Your task to perform on an android device: Clear the shopping cart on amazon. Add dell alienware to the cart on amazon, then select checkout. Image 0: 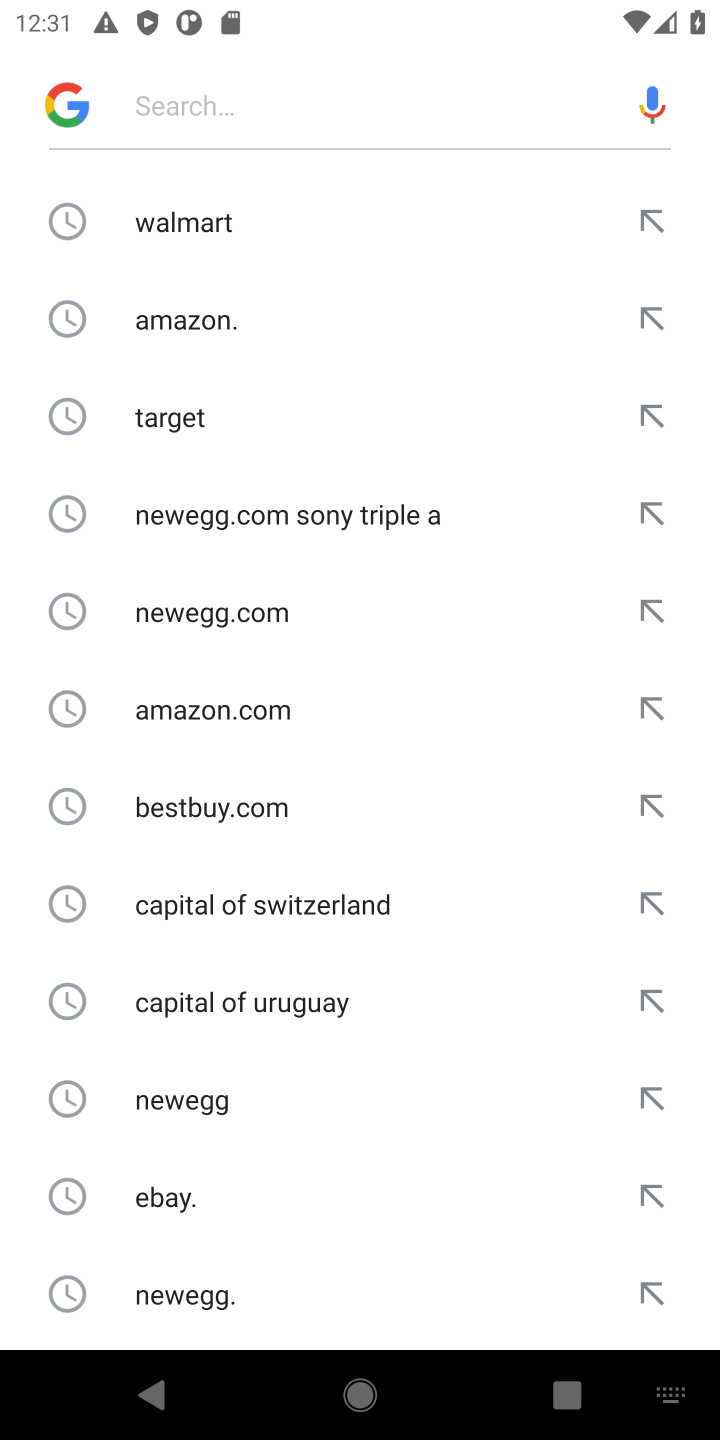
Step 0: click (249, 318)
Your task to perform on an android device: Clear the shopping cart on amazon. Add dell alienware to the cart on amazon, then select checkout. Image 1: 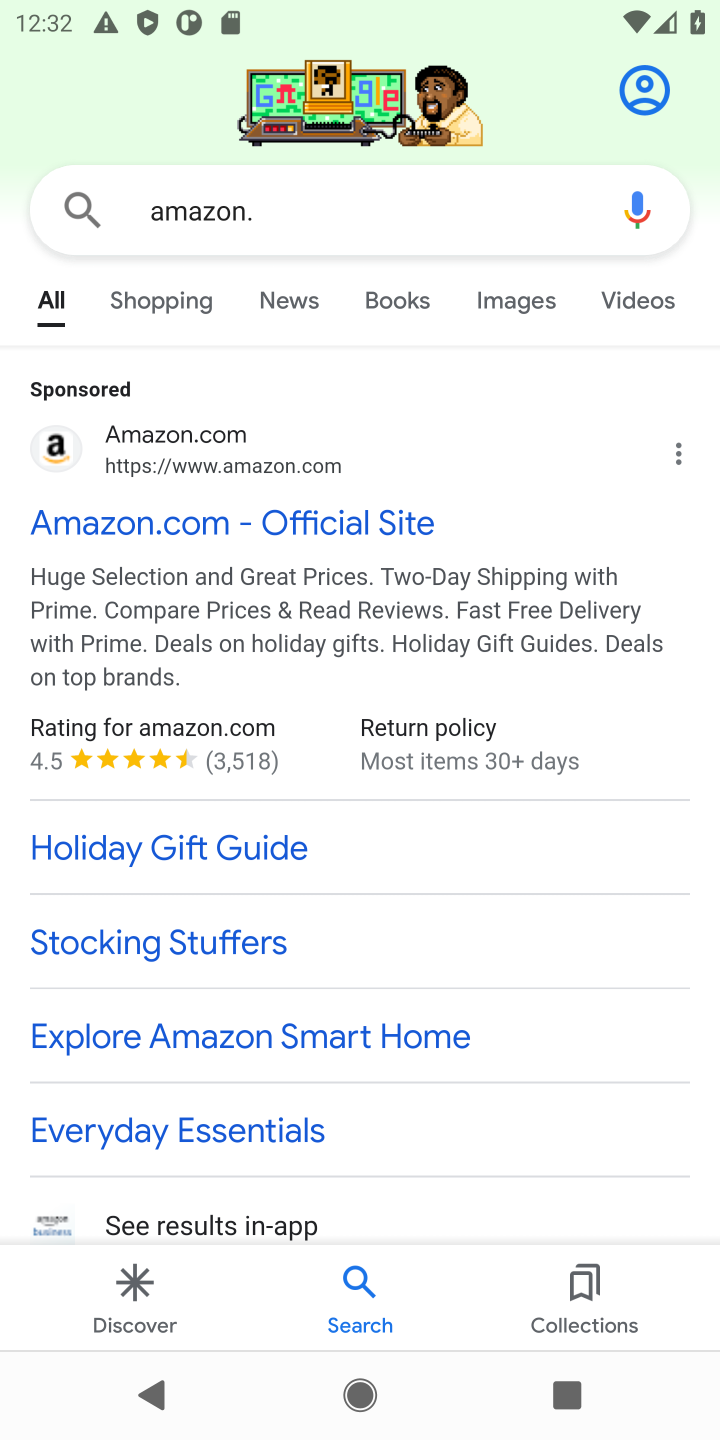
Step 1: click (87, 520)
Your task to perform on an android device: Clear the shopping cart on amazon. Add dell alienware to the cart on amazon, then select checkout. Image 2: 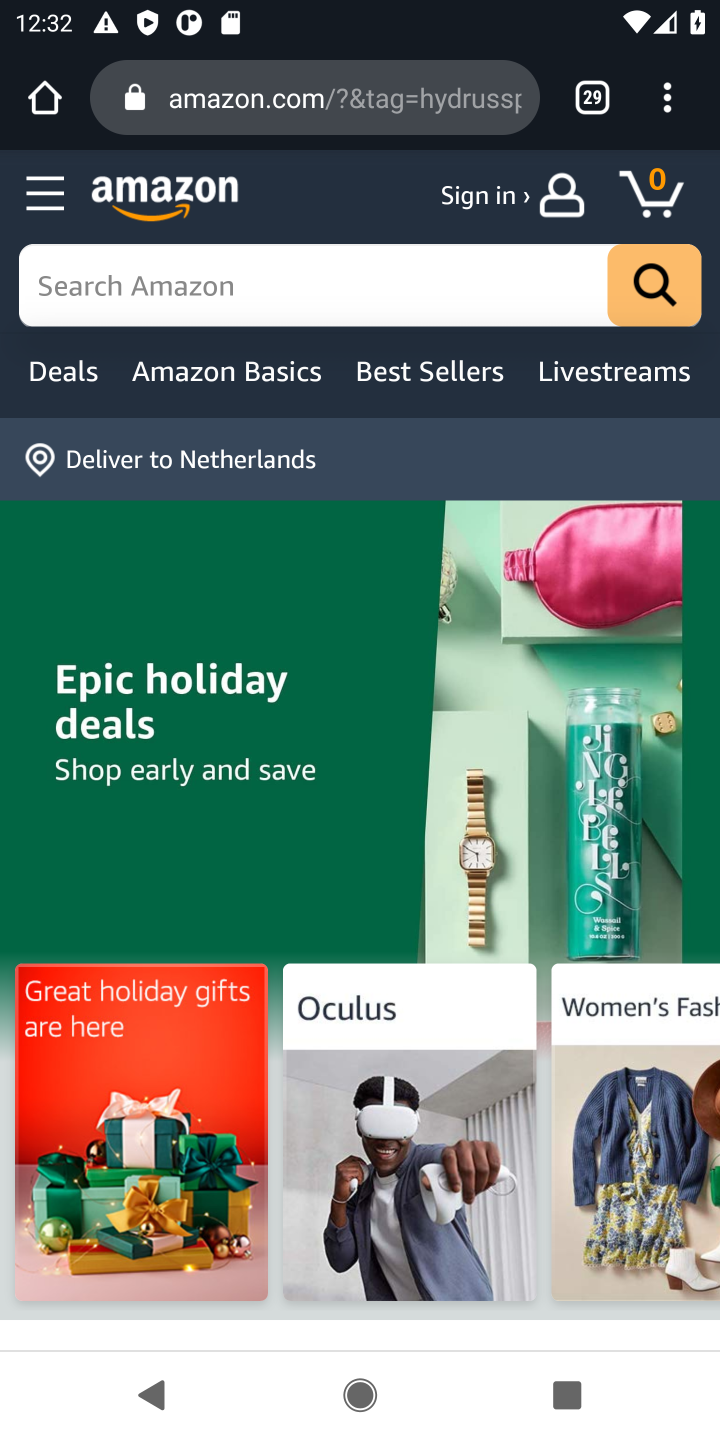
Step 2: click (308, 273)
Your task to perform on an android device: Clear the shopping cart on amazon. Add dell alienware to the cart on amazon, then select checkout. Image 3: 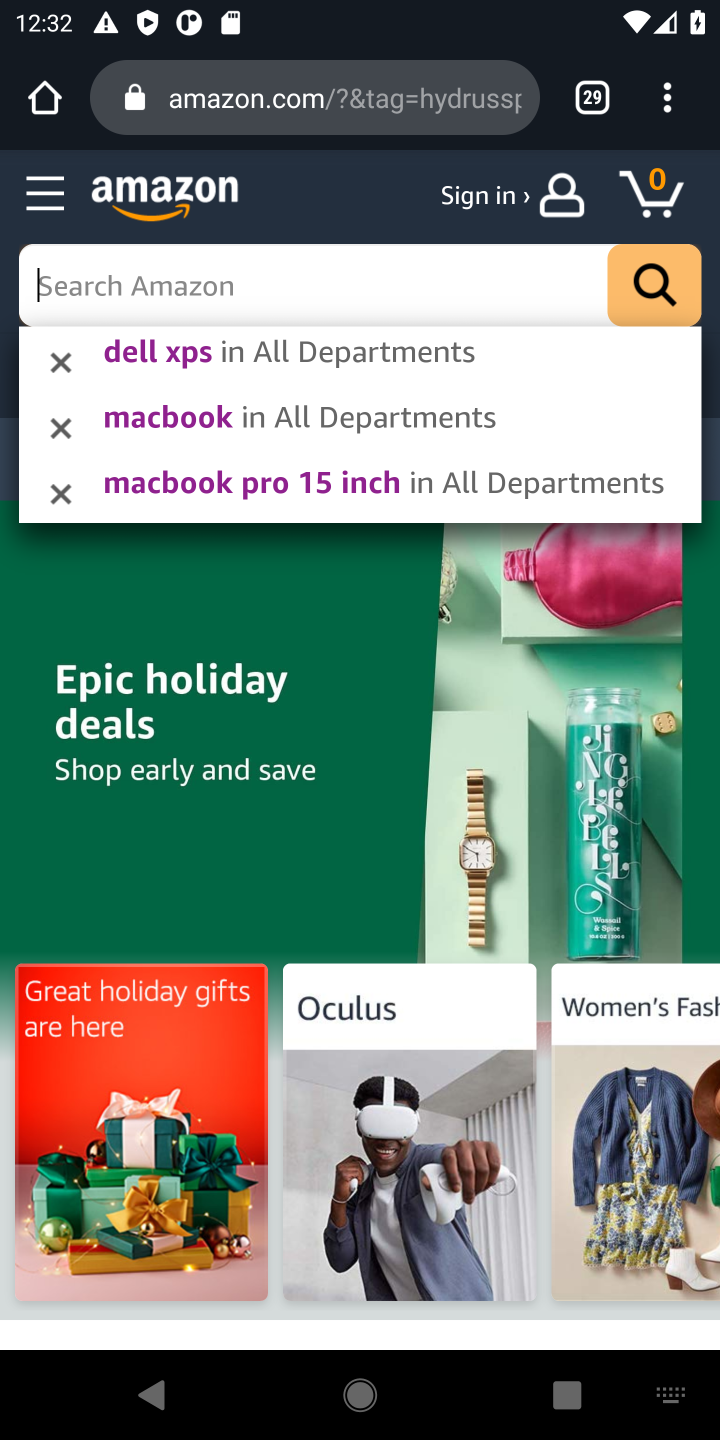
Step 3: type "dell alienware"
Your task to perform on an android device: Clear the shopping cart on amazon. Add dell alienware to the cart on amazon, then select checkout. Image 4: 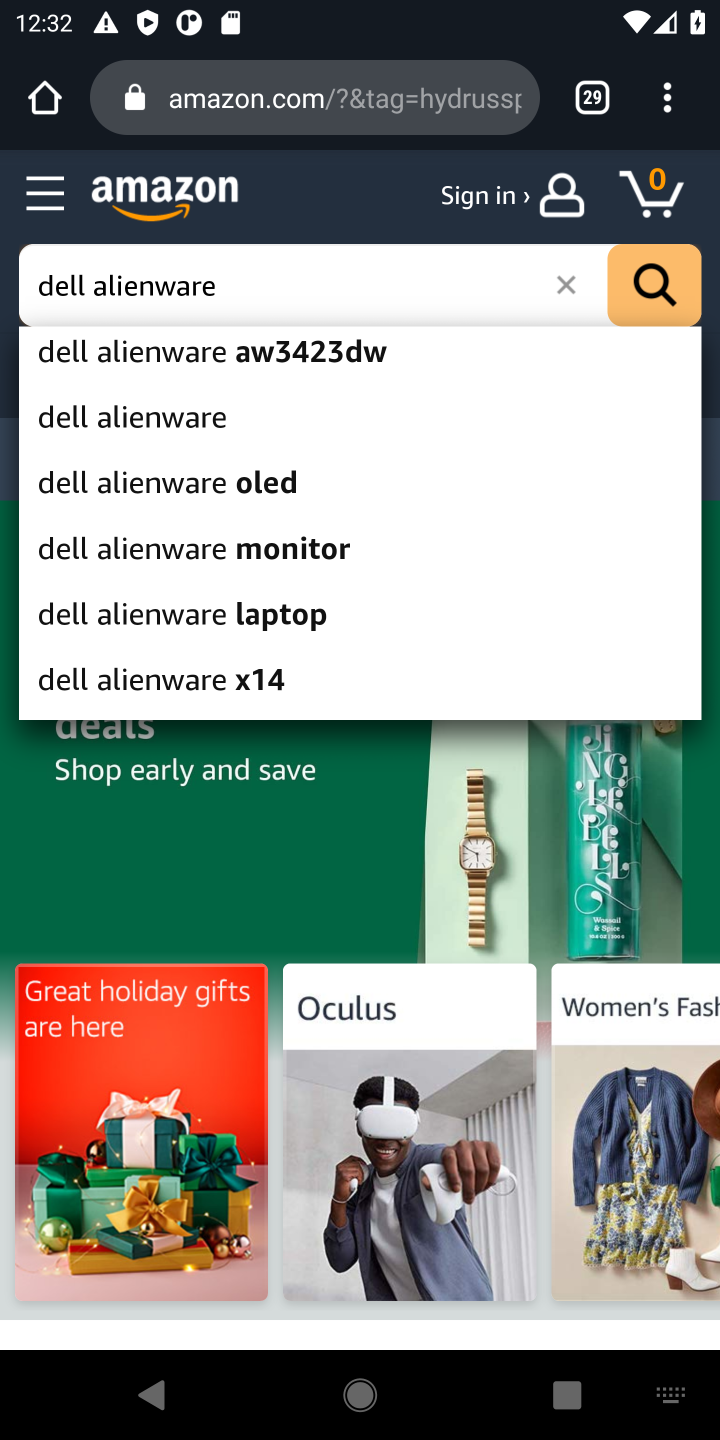
Step 4: click (113, 438)
Your task to perform on an android device: Clear the shopping cart on amazon. Add dell alienware to the cart on amazon, then select checkout. Image 5: 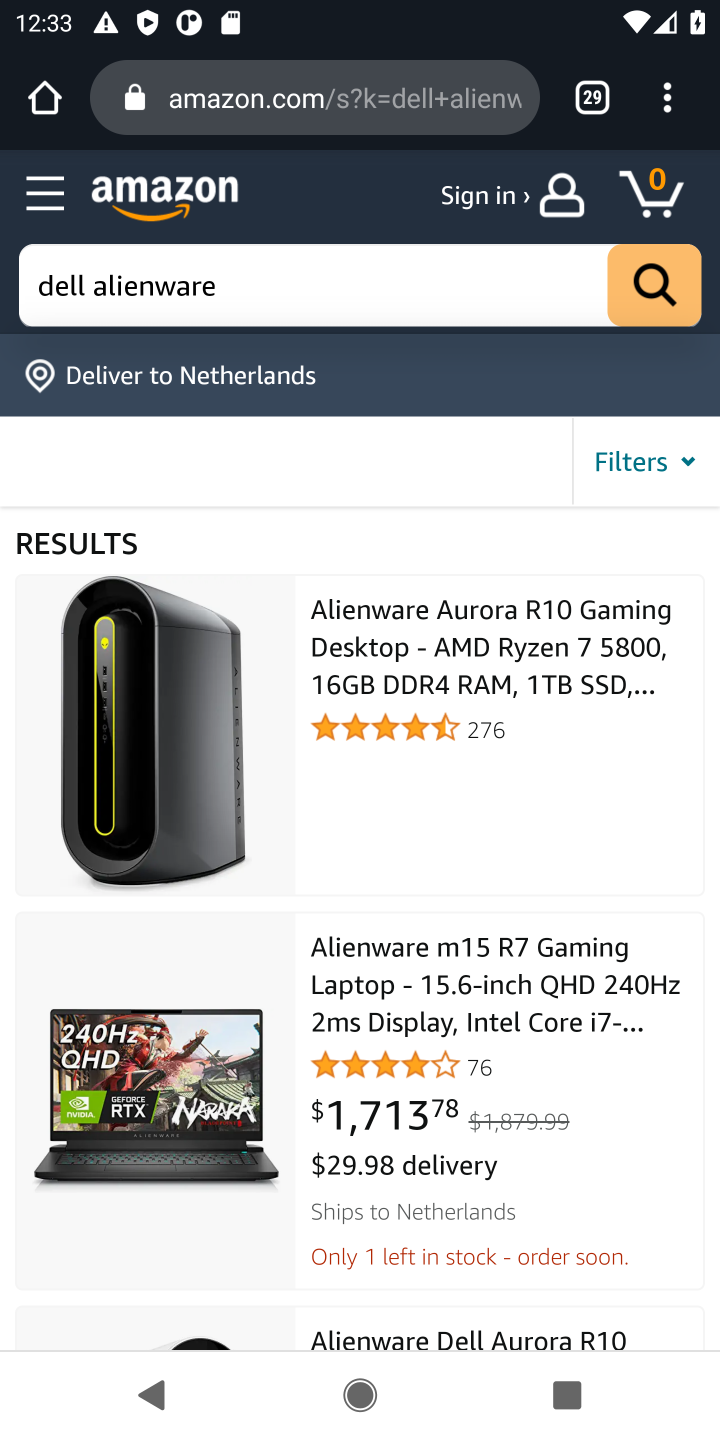
Step 5: click (382, 666)
Your task to perform on an android device: Clear the shopping cart on amazon. Add dell alienware to the cart on amazon, then select checkout. Image 6: 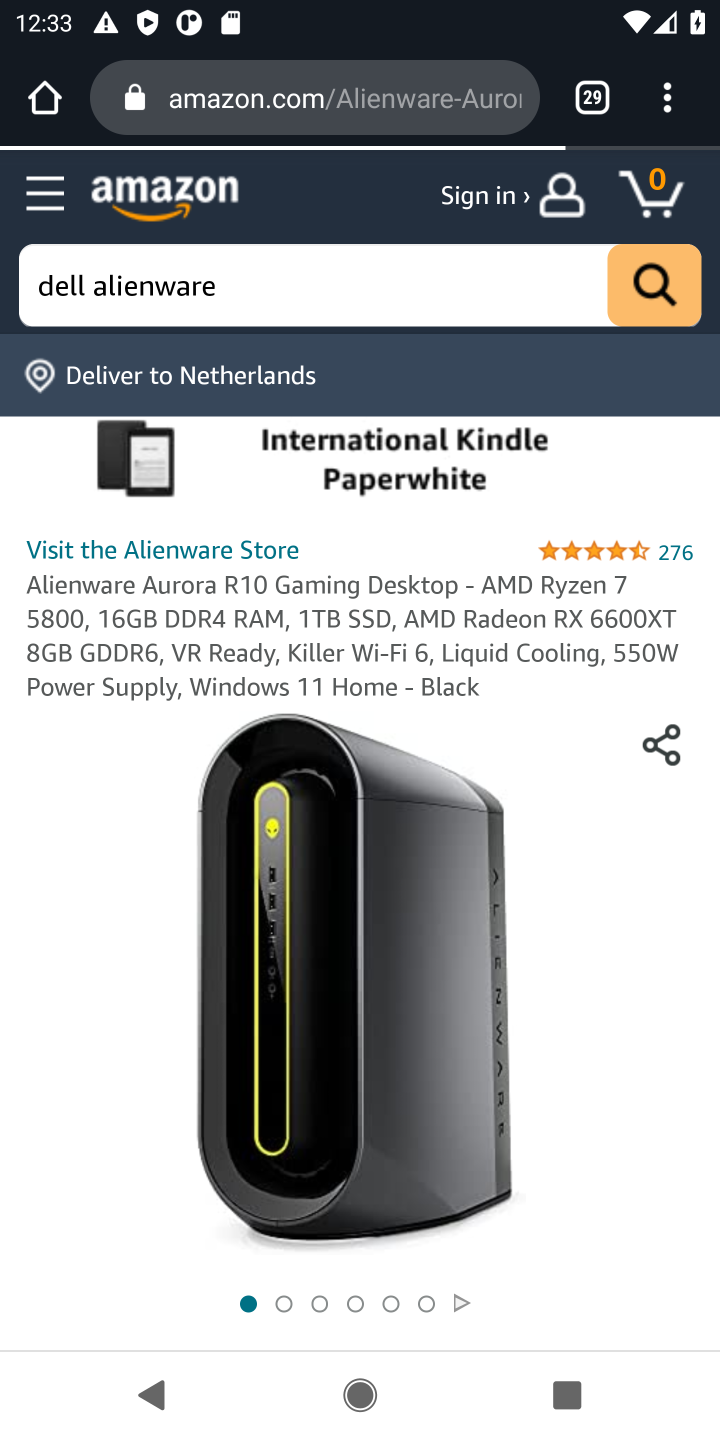
Step 6: drag from (416, 982) to (356, 719)
Your task to perform on an android device: Clear the shopping cart on amazon. Add dell alienware to the cart on amazon, then select checkout. Image 7: 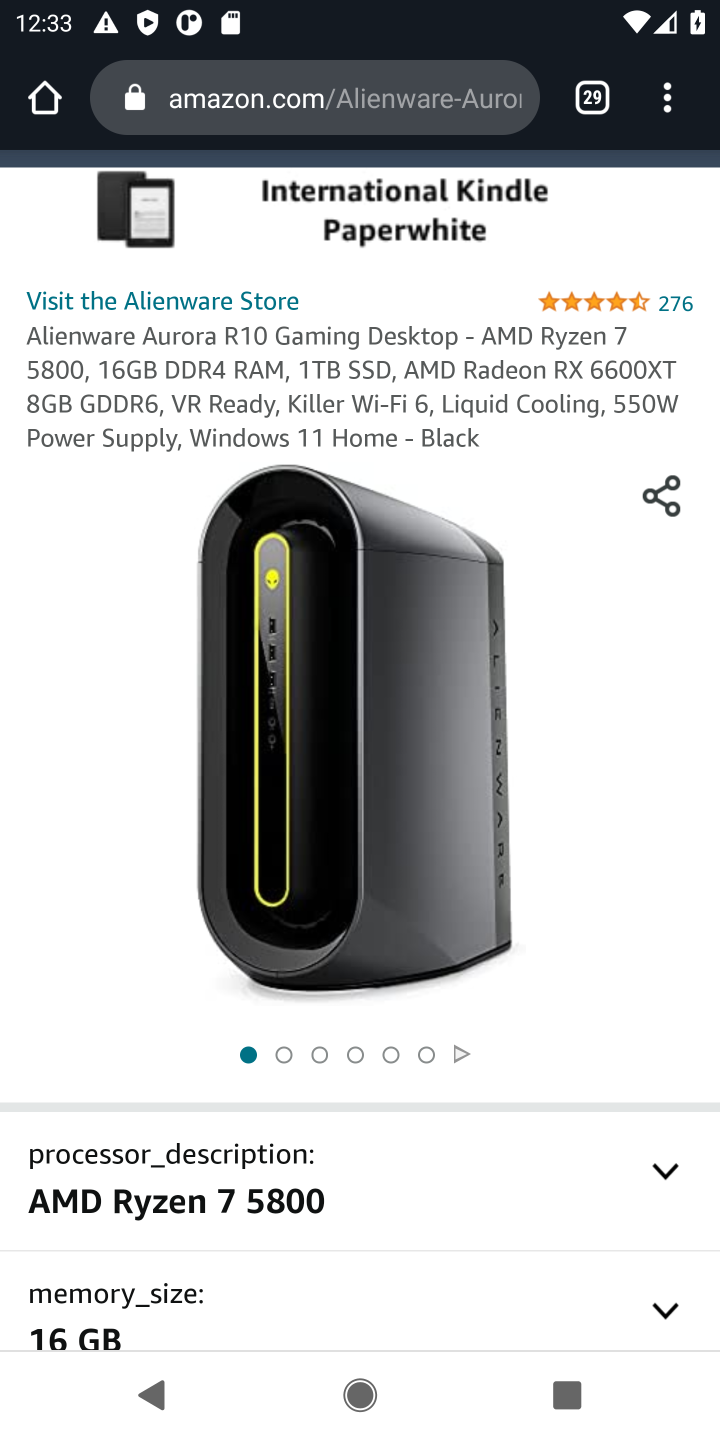
Step 7: drag from (432, 1178) to (360, 682)
Your task to perform on an android device: Clear the shopping cart on amazon. Add dell alienware to the cart on amazon, then select checkout. Image 8: 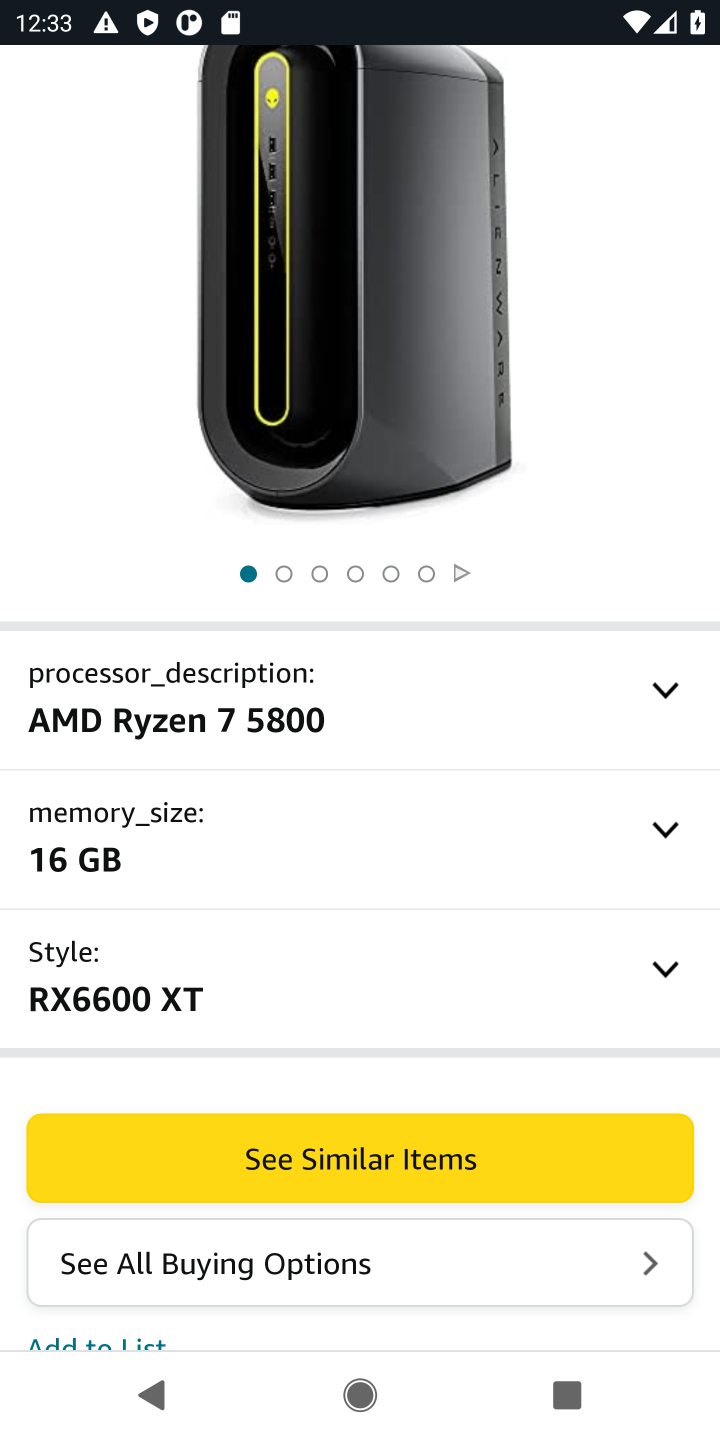
Step 8: drag from (325, 1111) to (246, 718)
Your task to perform on an android device: Clear the shopping cart on amazon. Add dell alienware to the cart on amazon, then select checkout. Image 9: 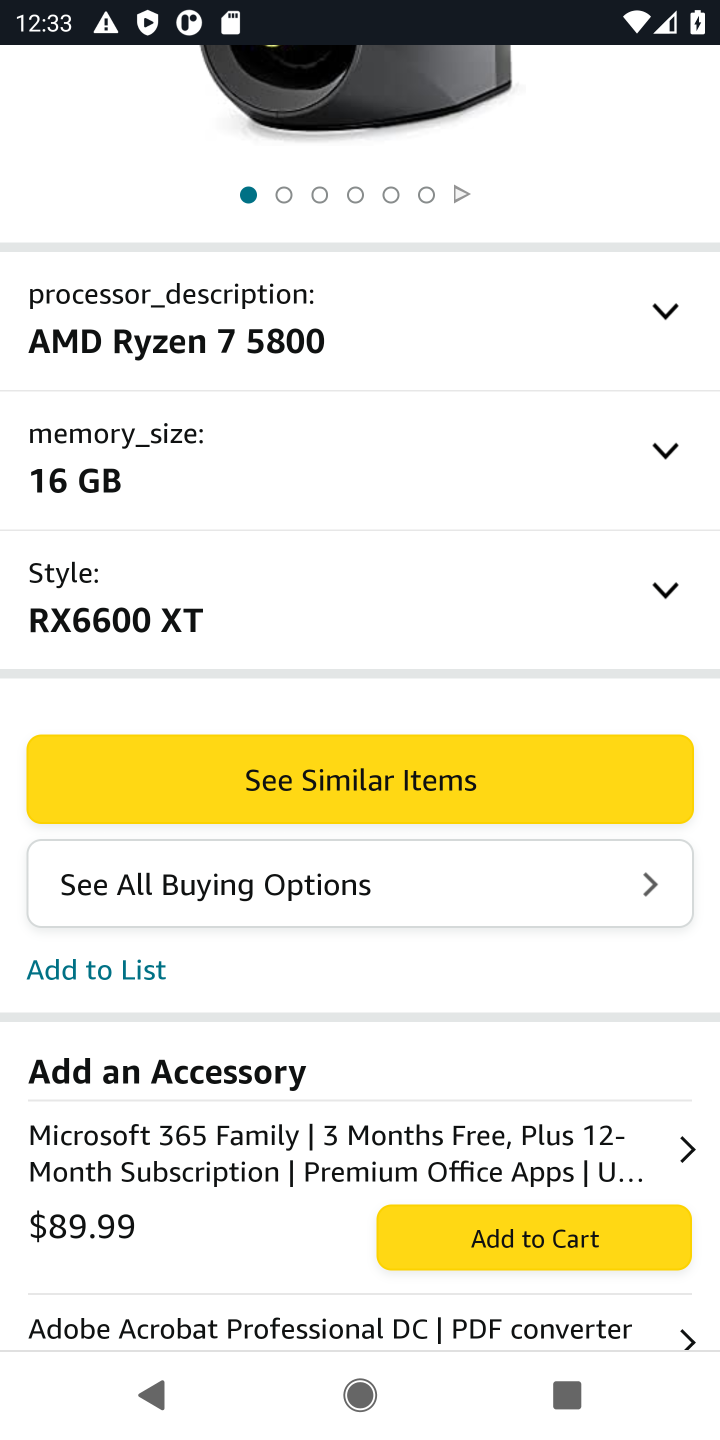
Step 9: click (327, 772)
Your task to perform on an android device: Clear the shopping cart on amazon. Add dell alienware to the cart on amazon, then select checkout. Image 10: 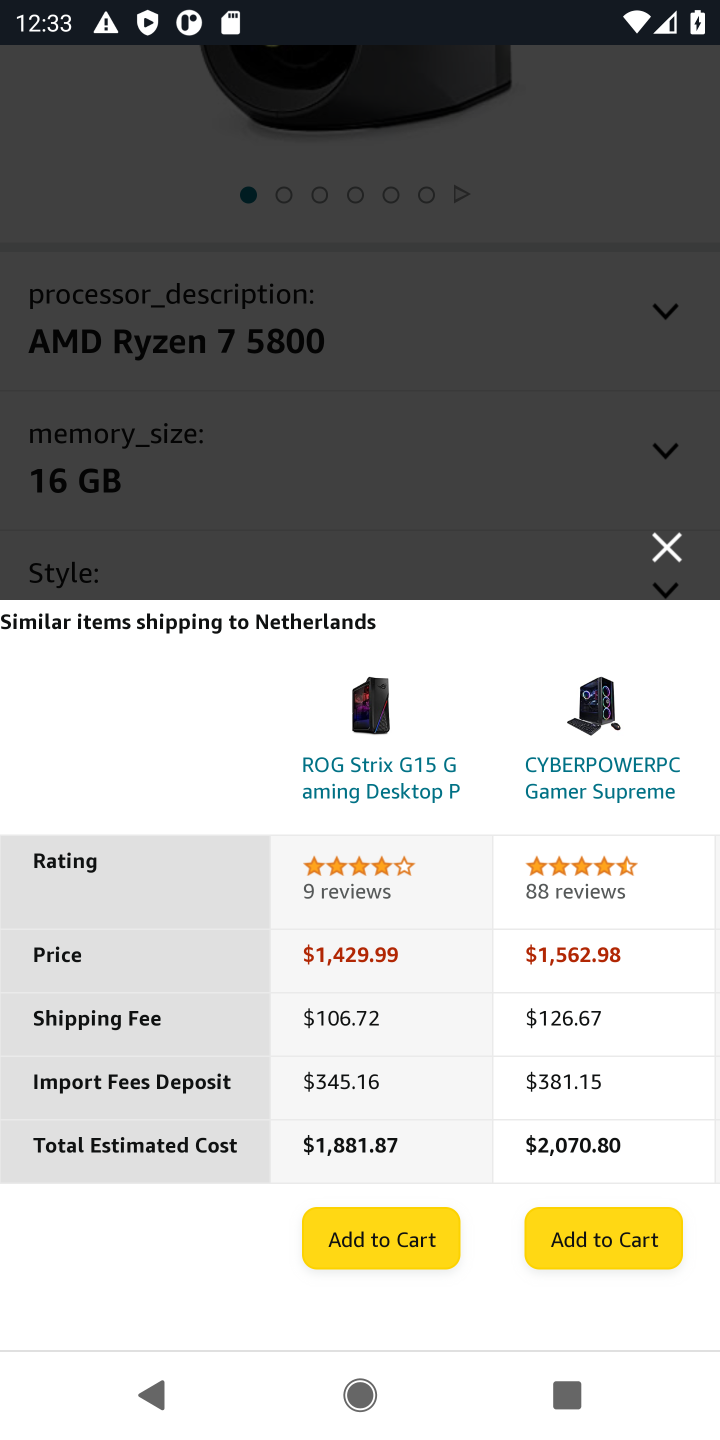
Step 10: click (664, 543)
Your task to perform on an android device: Clear the shopping cart on amazon. Add dell alienware to the cart on amazon, then select checkout. Image 11: 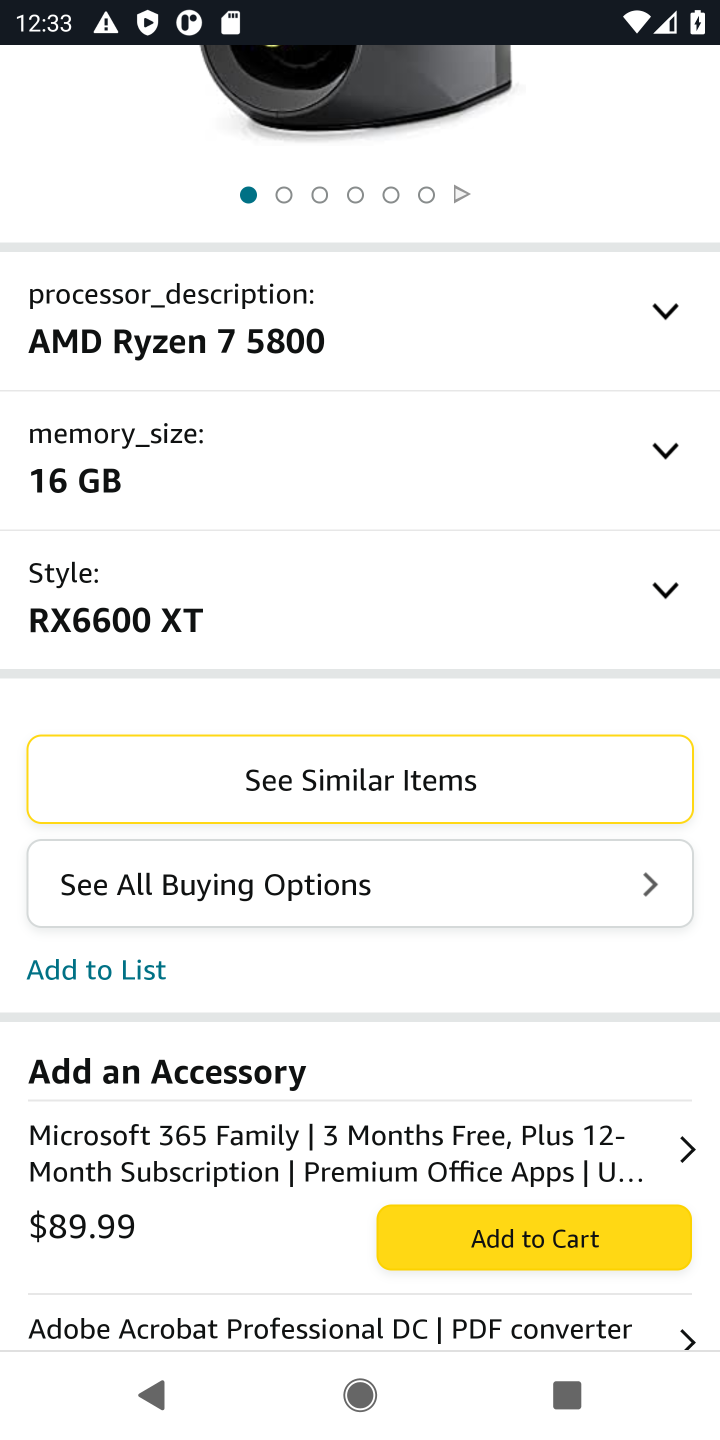
Step 11: click (524, 1223)
Your task to perform on an android device: Clear the shopping cart on amazon. Add dell alienware to the cart on amazon, then select checkout. Image 12: 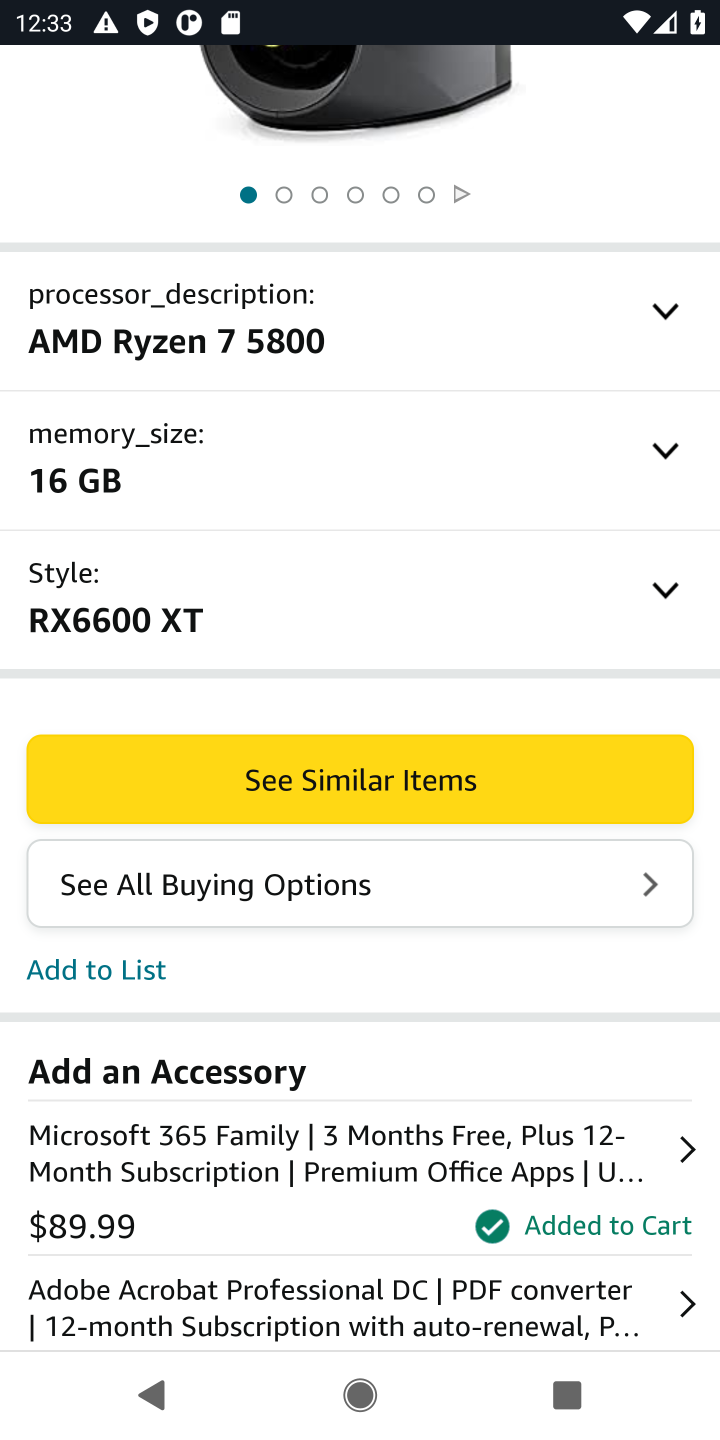
Step 12: drag from (287, 505) to (325, 969)
Your task to perform on an android device: Clear the shopping cart on amazon. Add dell alienware to the cart on amazon, then select checkout. Image 13: 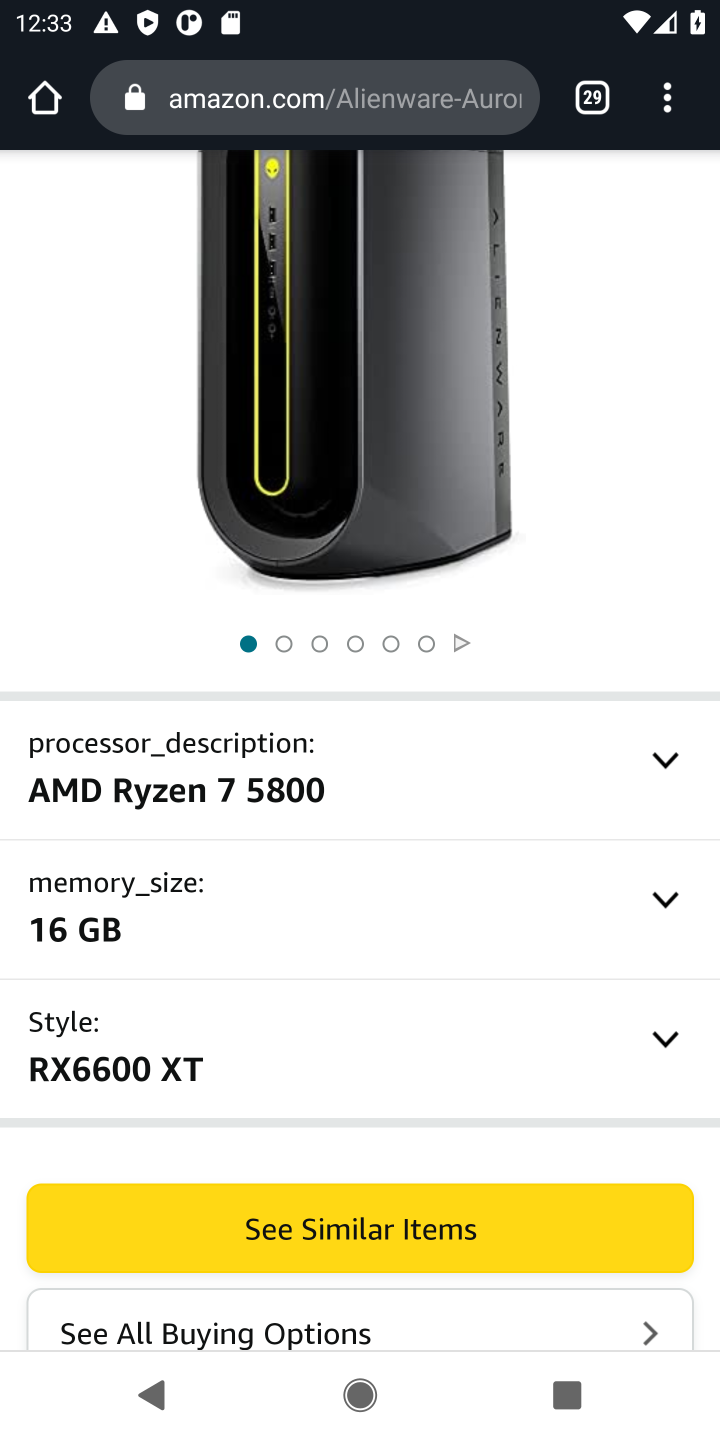
Step 13: drag from (401, 597) to (421, 1061)
Your task to perform on an android device: Clear the shopping cart on amazon. Add dell alienware to the cart on amazon, then select checkout. Image 14: 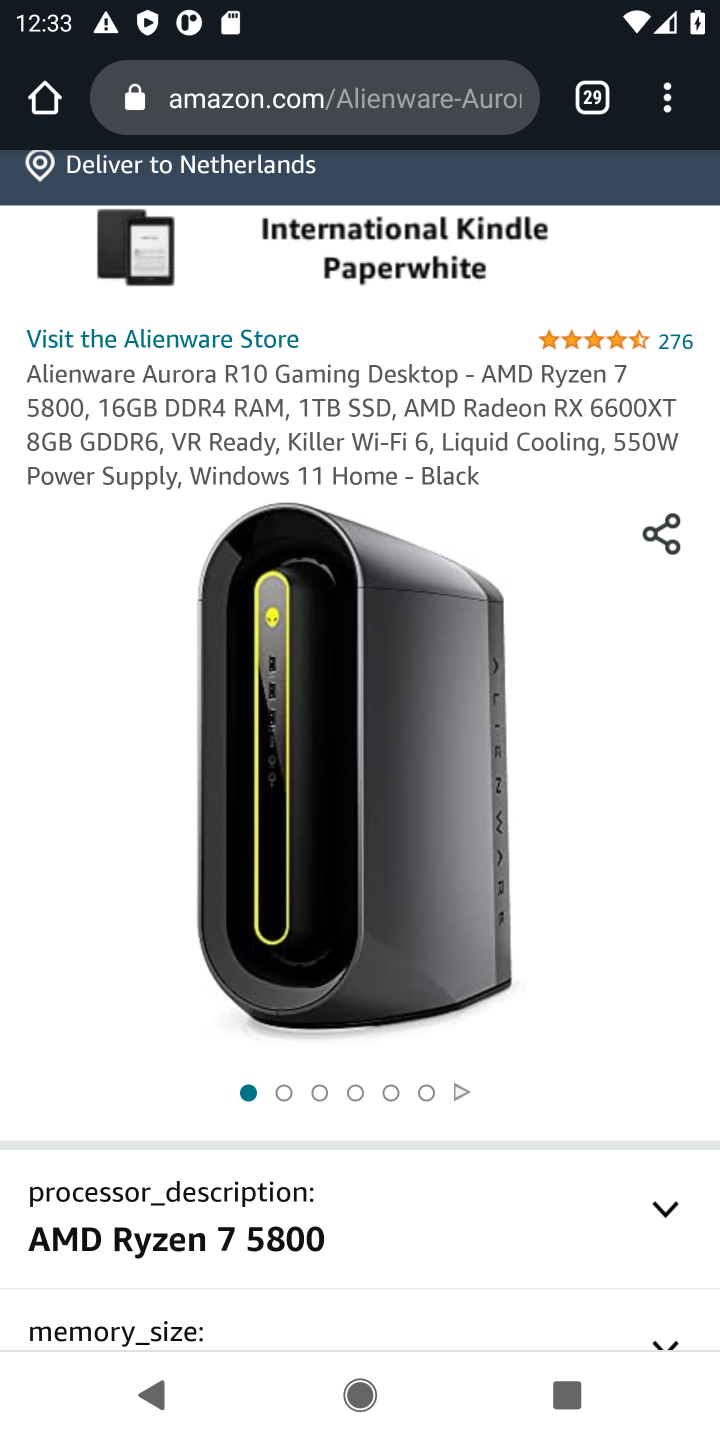
Step 14: drag from (457, 541) to (433, 1022)
Your task to perform on an android device: Clear the shopping cart on amazon. Add dell alienware to the cart on amazon, then select checkout. Image 15: 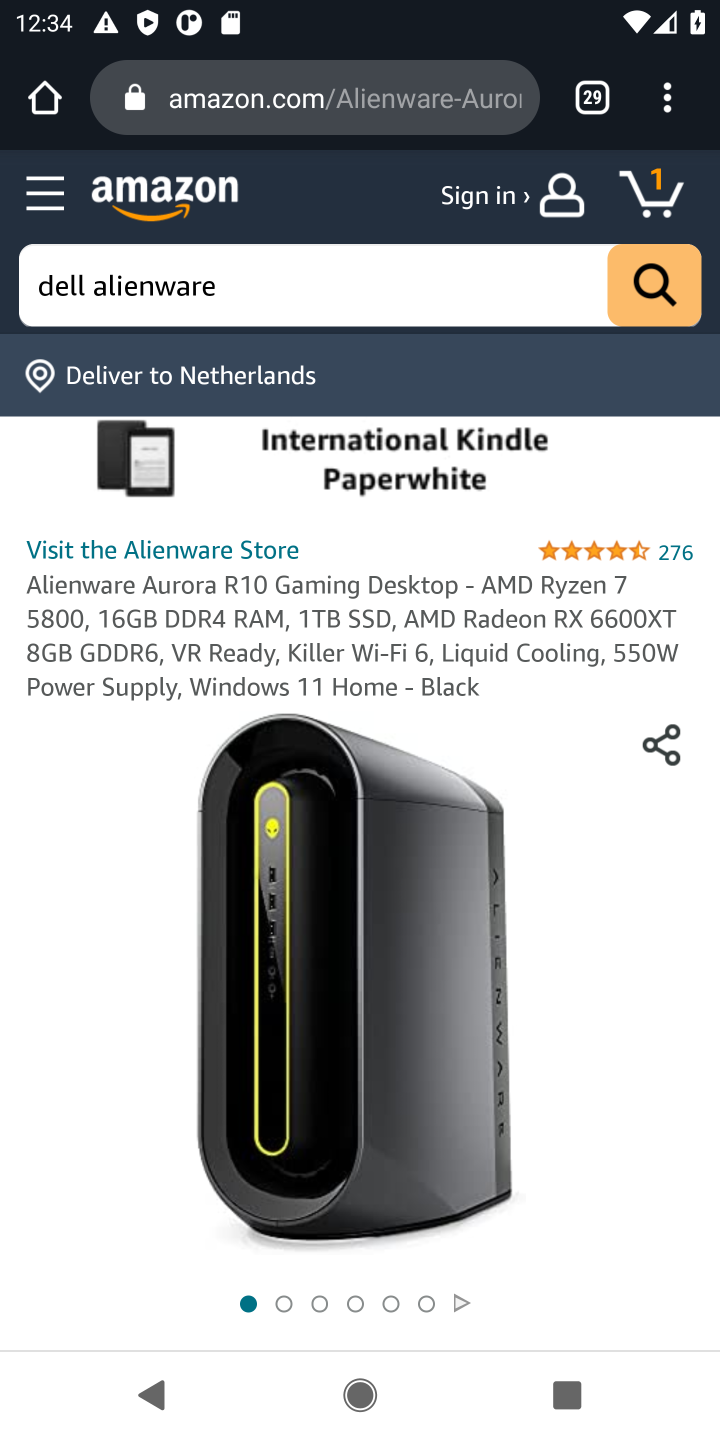
Step 15: click (674, 204)
Your task to perform on an android device: Clear the shopping cart on amazon. Add dell alienware to the cart on amazon, then select checkout. Image 16: 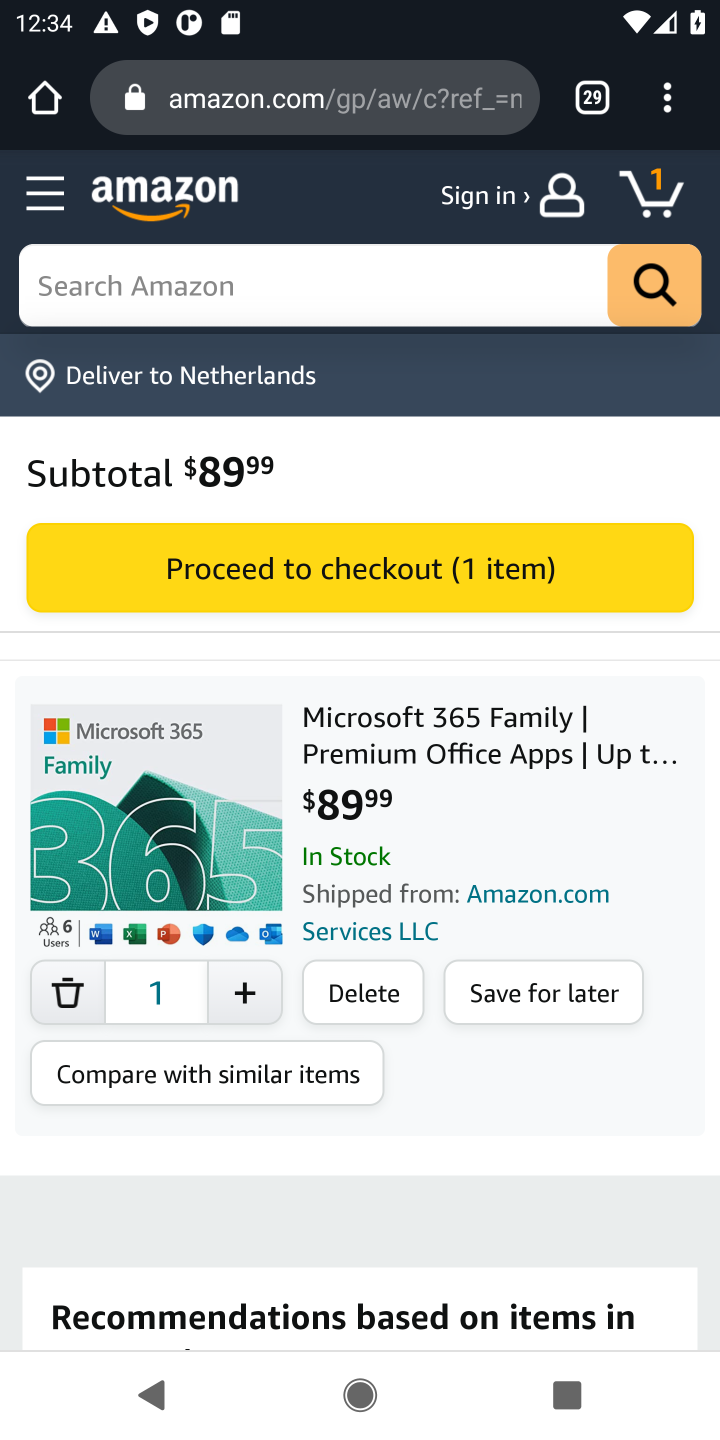
Step 16: click (397, 601)
Your task to perform on an android device: Clear the shopping cart on amazon. Add dell alienware to the cart on amazon, then select checkout. Image 17: 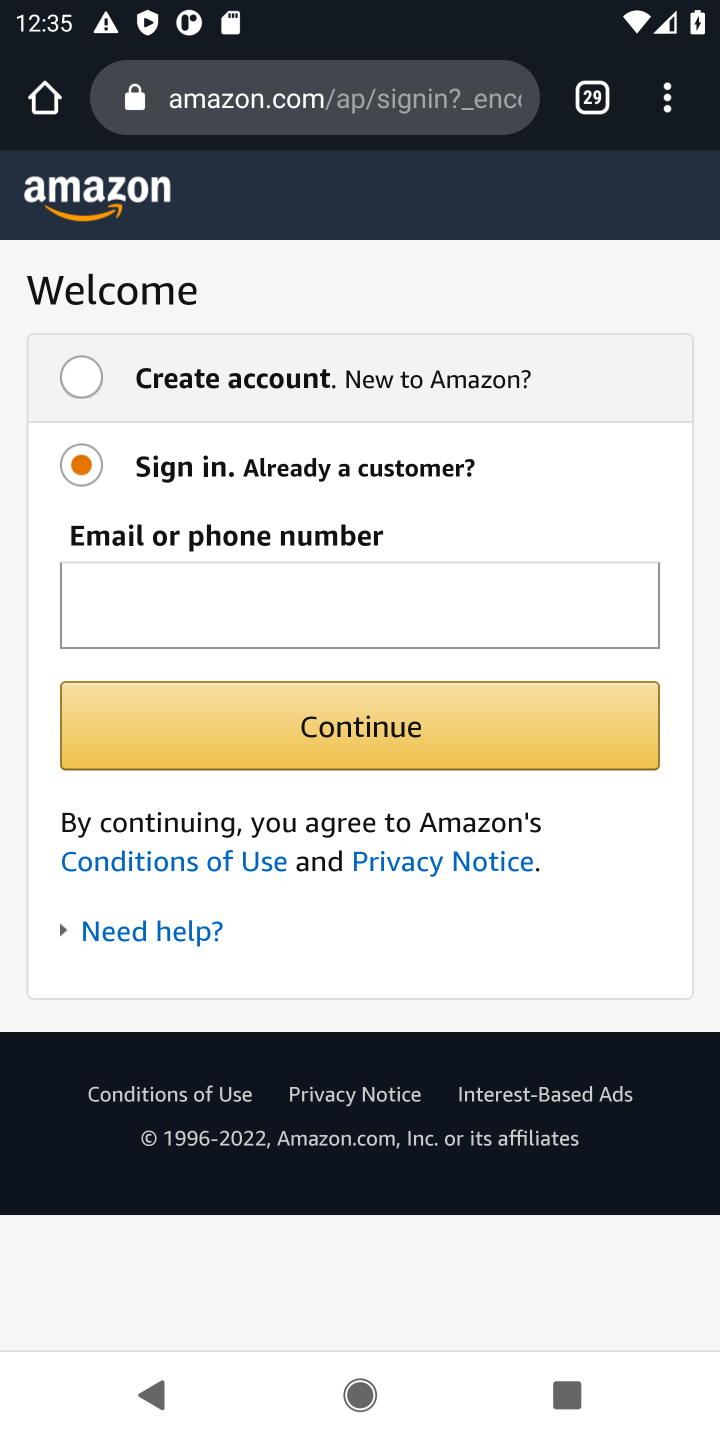
Step 17: task complete